Your task to perform on an android device: turn on translation in the chrome app Image 0: 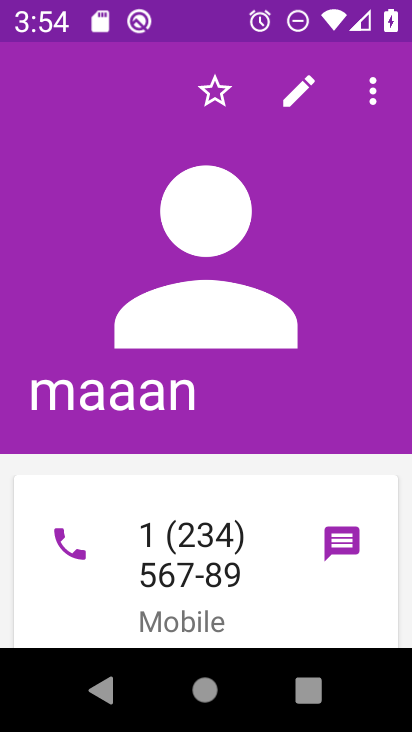
Step 0: press home button
Your task to perform on an android device: turn on translation in the chrome app Image 1: 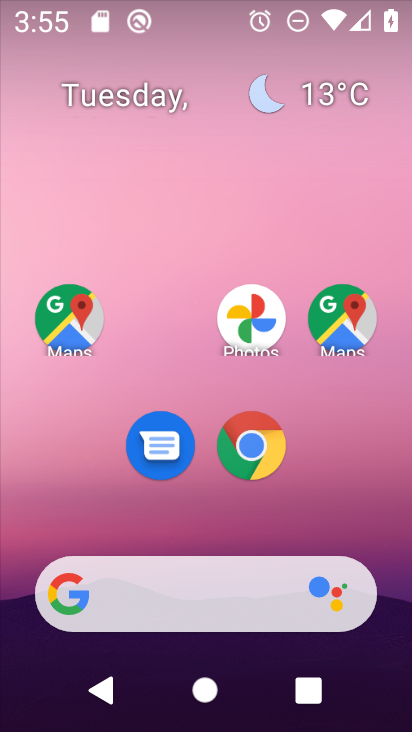
Step 1: drag from (398, 572) to (394, 300)
Your task to perform on an android device: turn on translation in the chrome app Image 2: 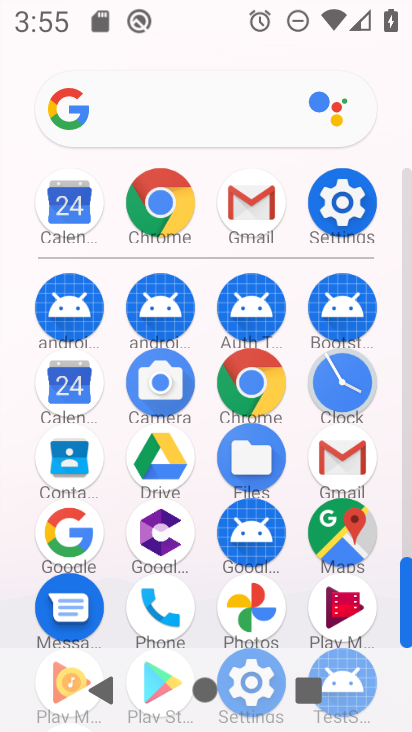
Step 2: click (273, 410)
Your task to perform on an android device: turn on translation in the chrome app Image 3: 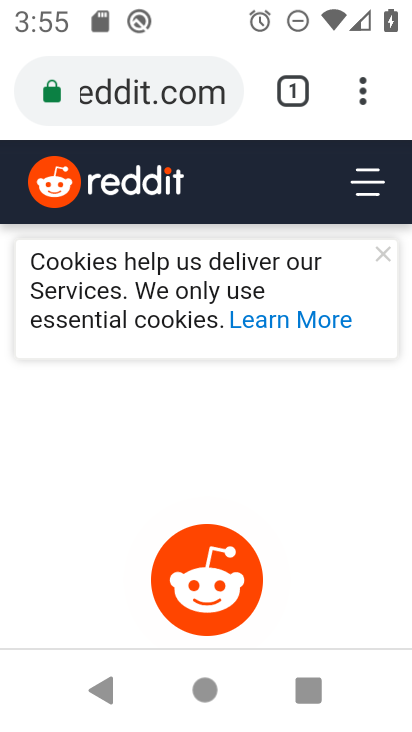
Step 3: click (361, 101)
Your task to perform on an android device: turn on translation in the chrome app Image 4: 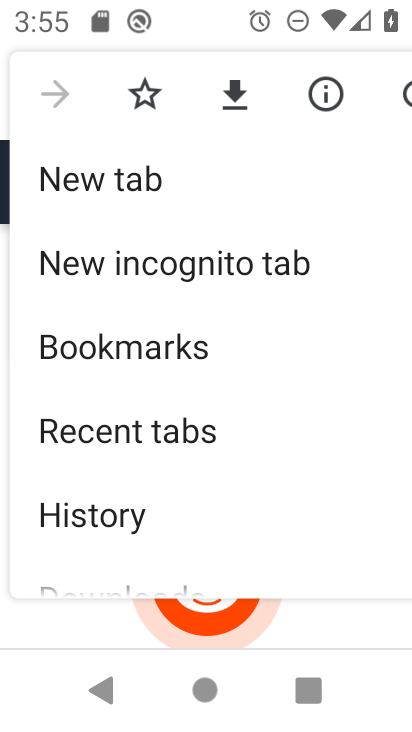
Step 4: drag from (377, 429) to (385, 381)
Your task to perform on an android device: turn on translation in the chrome app Image 5: 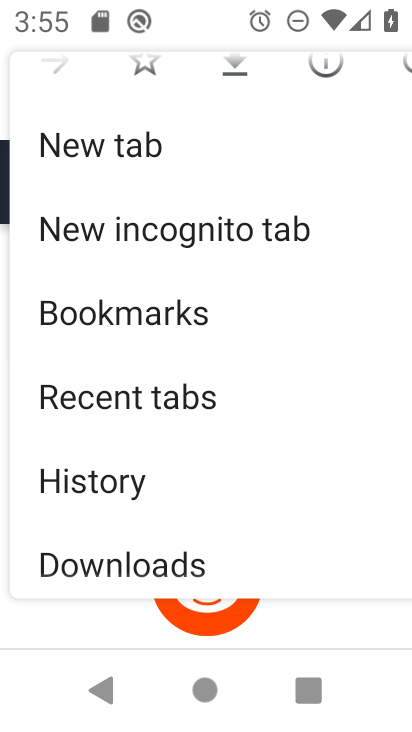
Step 5: drag from (373, 466) to (372, 417)
Your task to perform on an android device: turn on translation in the chrome app Image 6: 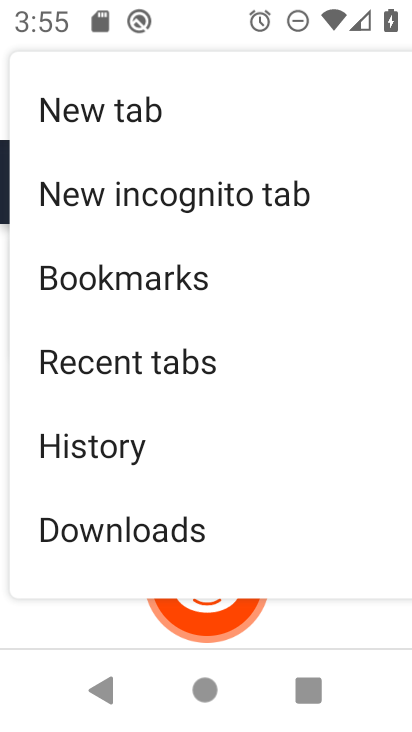
Step 6: drag from (363, 499) to (368, 438)
Your task to perform on an android device: turn on translation in the chrome app Image 7: 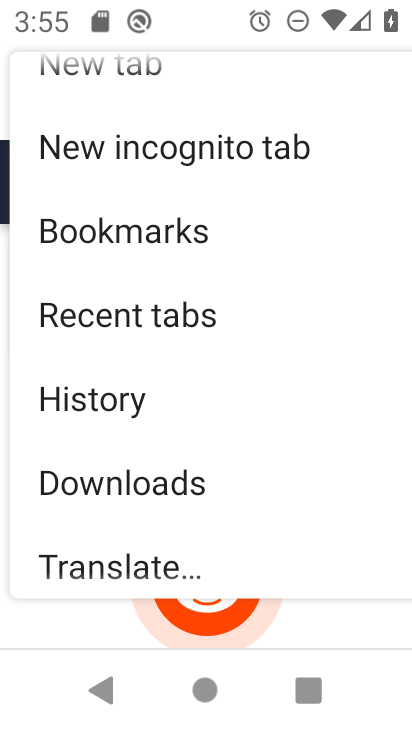
Step 7: drag from (354, 518) to (364, 453)
Your task to perform on an android device: turn on translation in the chrome app Image 8: 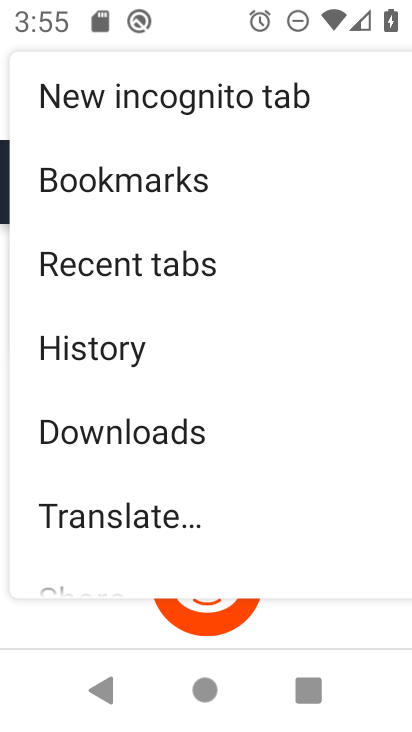
Step 8: drag from (359, 525) to (351, 449)
Your task to perform on an android device: turn on translation in the chrome app Image 9: 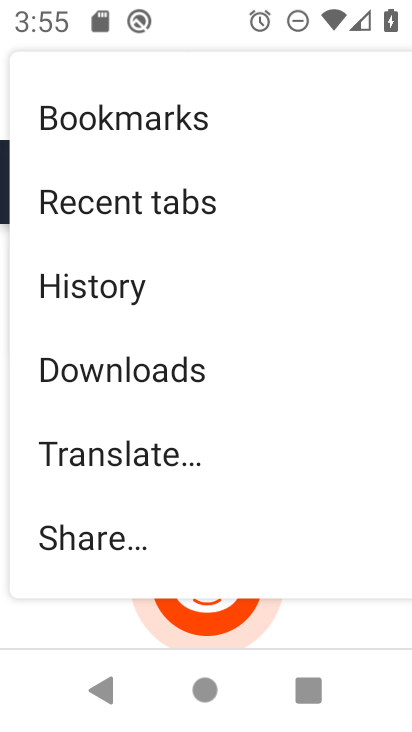
Step 9: drag from (335, 523) to (338, 431)
Your task to perform on an android device: turn on translation in the chrome app Image 10: 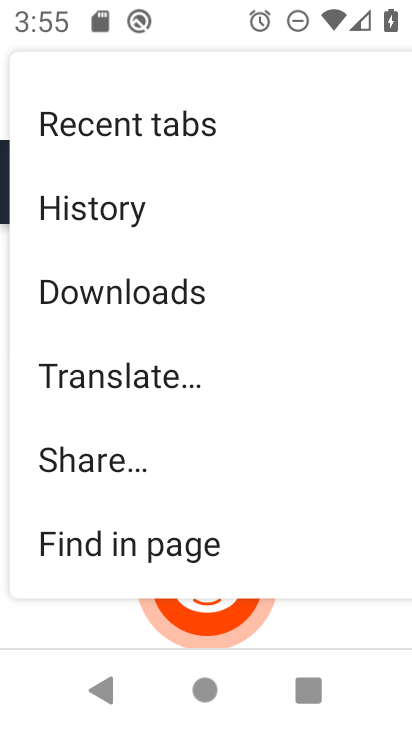
Step 10: drag from (338, 522) to (344, 400)
Your task to perform on an android device: turn on translation in the chrome app Image 11: 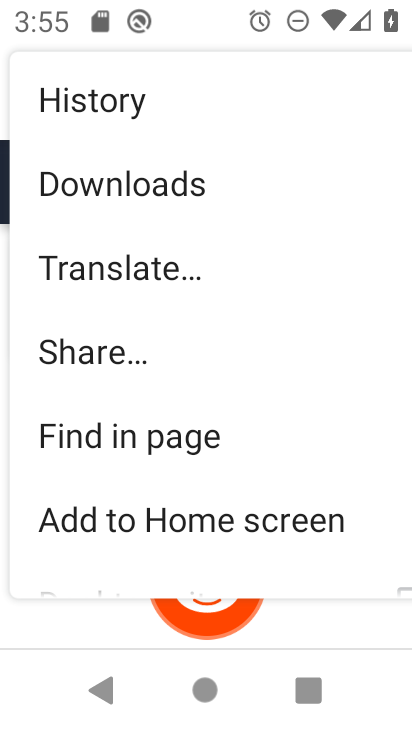
Step 11: drag from (364, 546) to (377, 448)
Your task to perform on an android device: turn on translation in the chrome app Image 12: 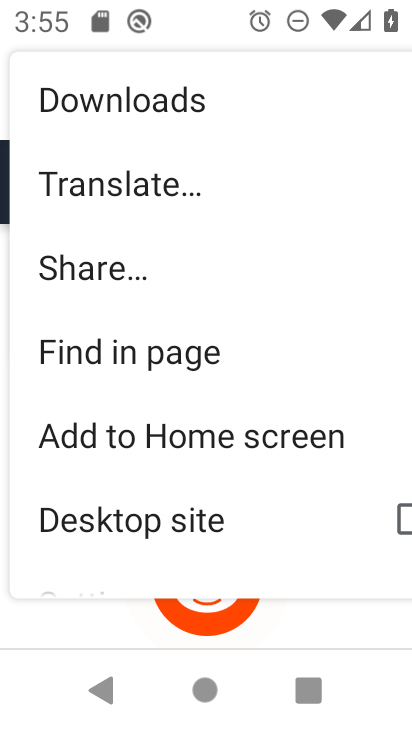
Step 12: drag from (355, 532) to (355, 455)
Your task to perform on an android device: turn on translation in the chrome app Image 13: 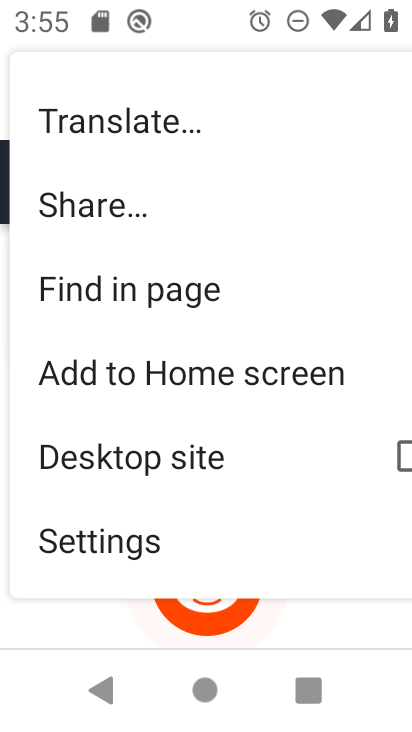
Step 13: click (207, 551)
Your task to perform on an android device: turn on translation in the chrome app Image 14: 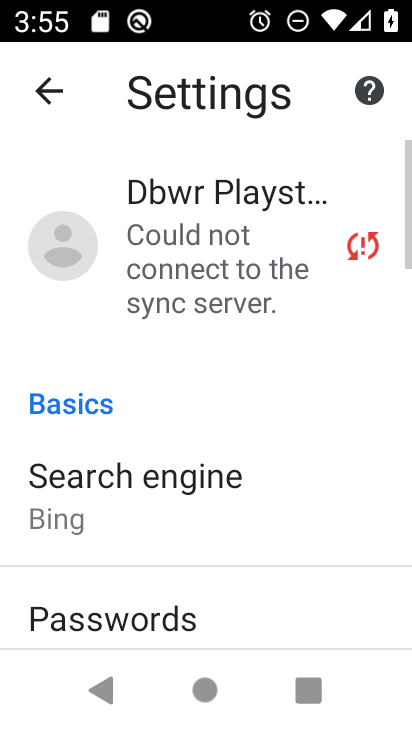
Step 14: drag from (300, 564) to (304, 518)
Your task to perform on an android device: turn on translation in the chrome app Image 15: 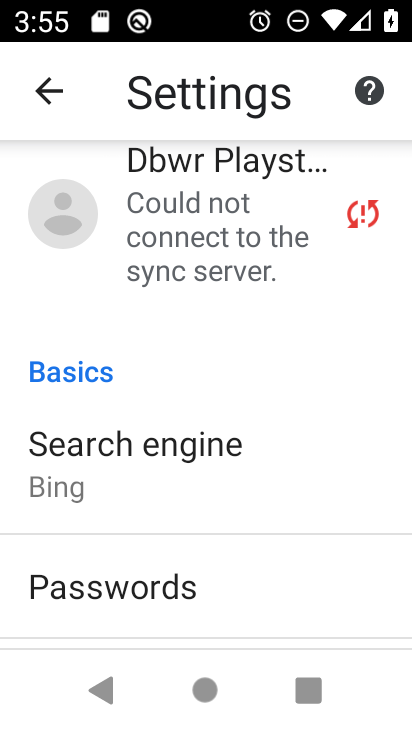
Step 15: drag from (316, 571) to (327, 509)
Your task to perform on an android device: turn on translation in the chrome app Image 16: 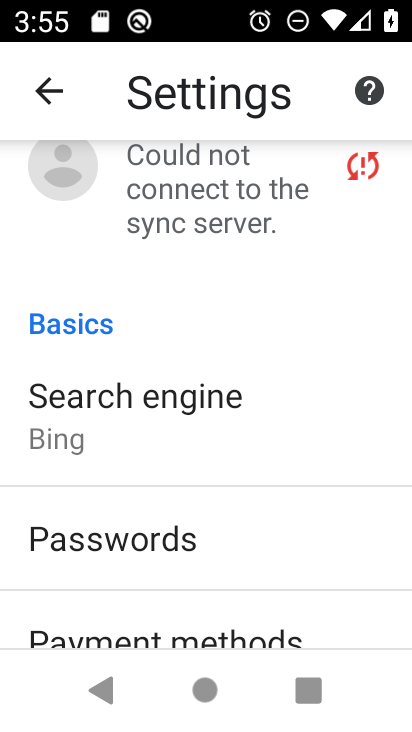
Step 16: drag from (334, 560) to (337, 486)
Your task to perform on an android device: turn on translation in the chrome app Image 17: 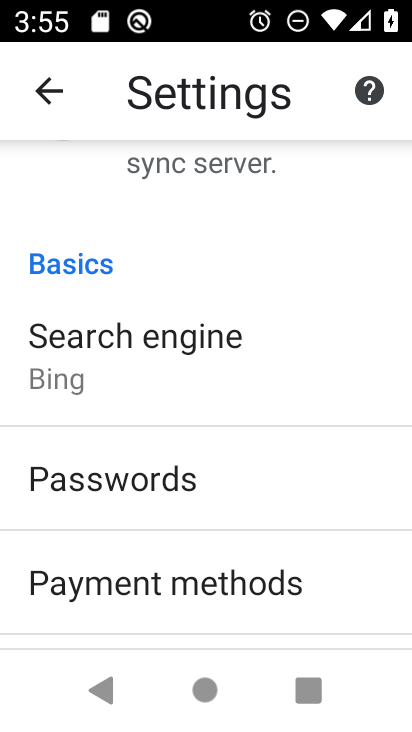
Step 17: drag from (347, 560) to (341, 483)
Your task to perform on an android device: turn on translation in the chrome app Image 18: 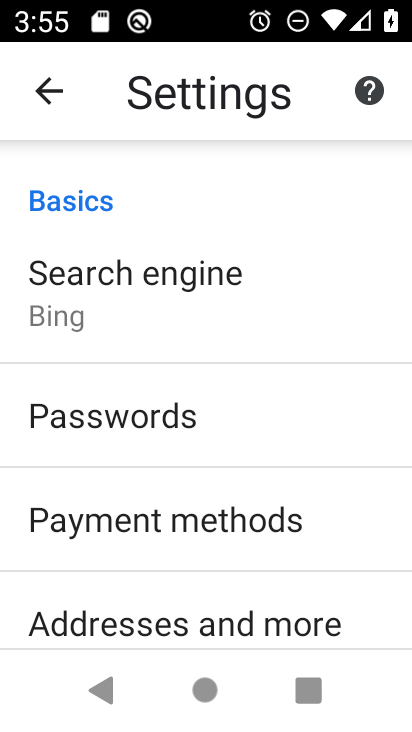
Step 18: drag from (361, 567) to (374, 501)
Your task to perform on an android device: turn on translation in the chrome app Image 19: 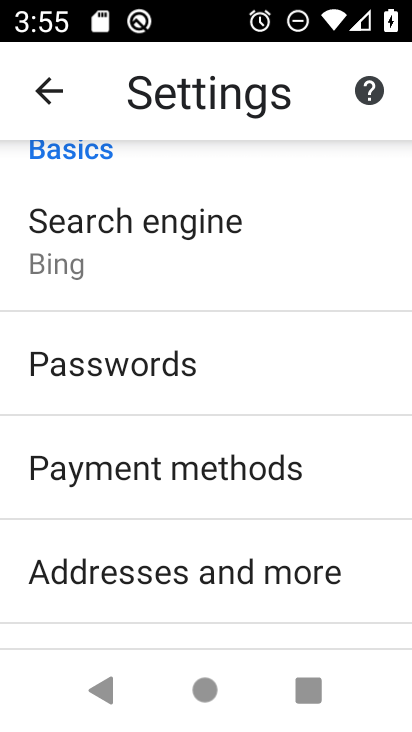
Step 19: drag from (367, 578) to (377, 489)
Your task to perform on an android device: turn on translation in the chrome app Image 20: 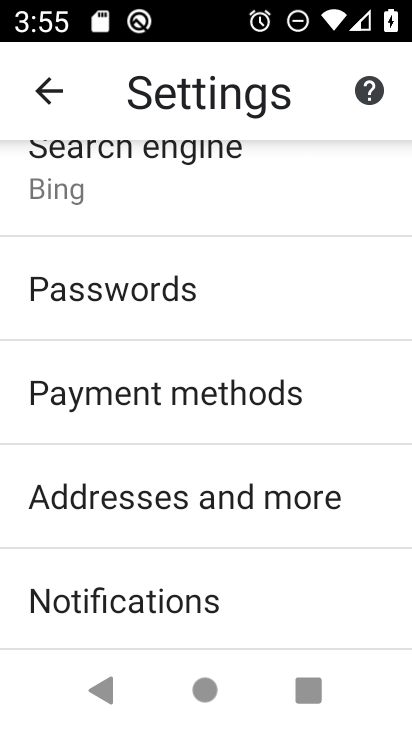
Step 20: drag from (377, 575) to (375, 489)
Your task to perform on an android device: turn on translation in the chrome app Image 21: 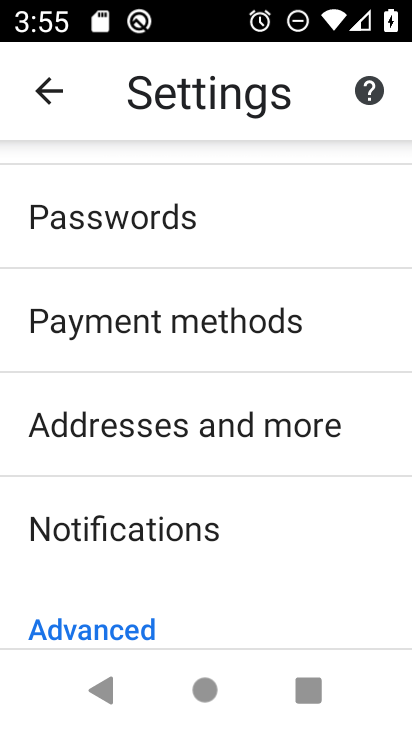
Step 21: drag from (361, 574) to (357, 475)
Your task to perform on an android device: turn on translation in the chrome app Image 22: 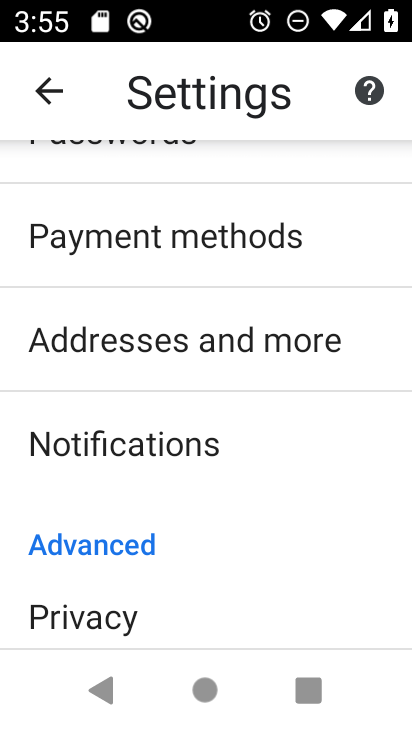
Step 22: drag from (347, 582) to (343, 498)
Your task to perform on an android device: turn on translation in the chrome app Image 23: 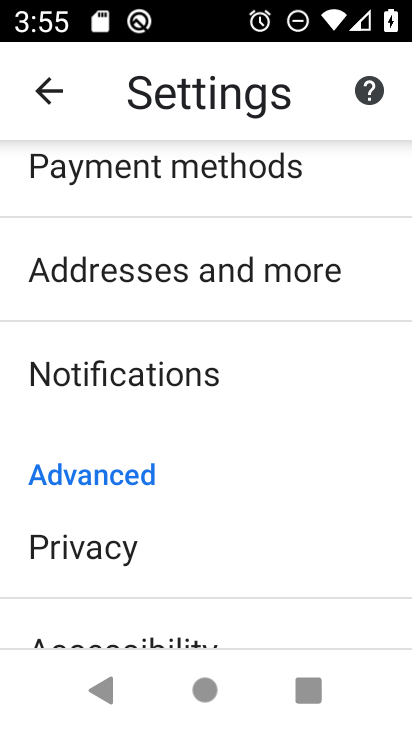
Step 23: drag from (336, 561) to (331, 476)
Your task to perform on an android device: turn on translation in the chrome app Image 24: 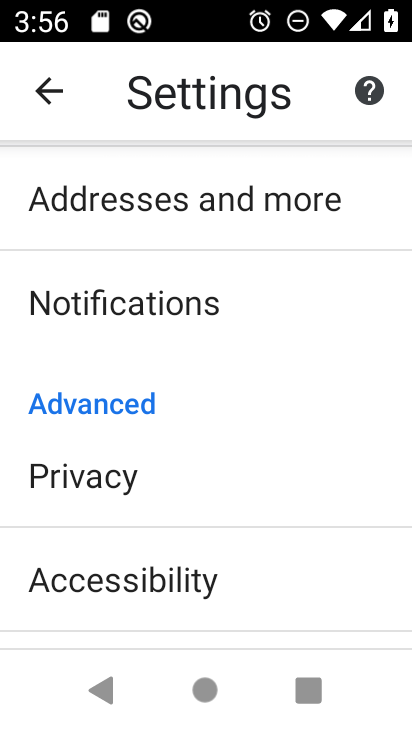
Step 24: drag from (340, 573) to (345, 497)
Your task to perform on an android device: turn on translation in the chrome app Image 25: 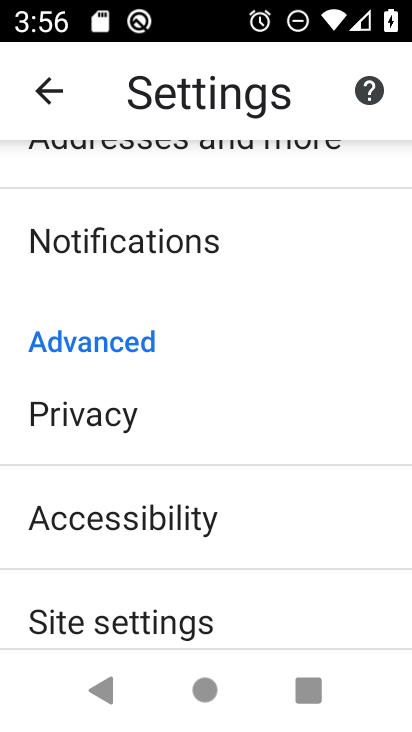
Step 25: drag from (343, 571) to (345, 494)
Your task to perform on an android device: turn on translation in the chrome app Image 26: 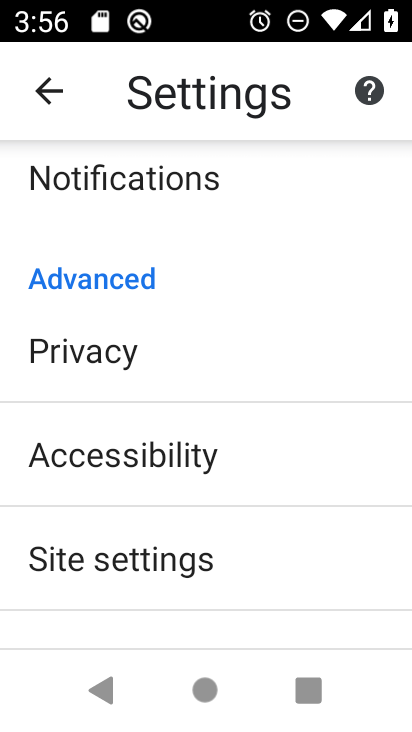
Step 26: drag from (339, 605) to (333, 496)
Your task to perform on an android device: turn on translation in the chrome app Image 27: 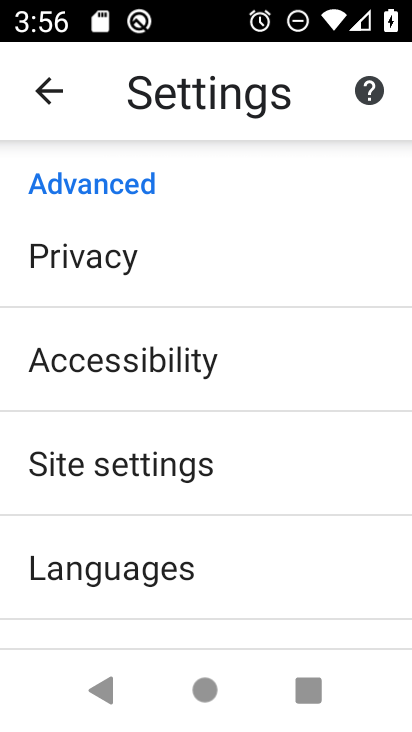
Step 27: click (338, 588)
Your task to perform on an android device: turn on translation in the chrome app Image 28: 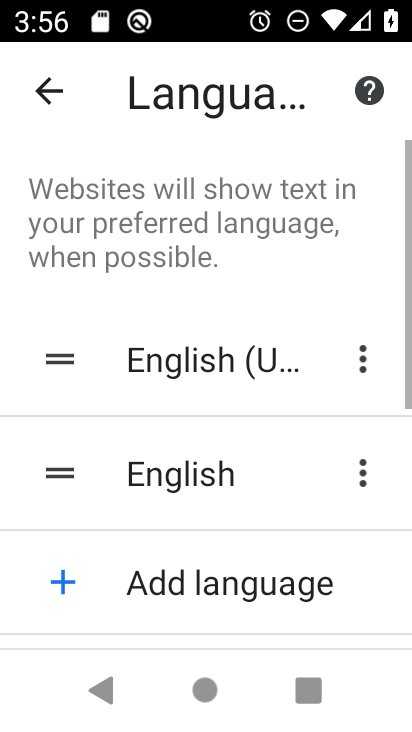
Step 28: drag from (333, 608) to (322, 511)
Your task to perform on an android device: turn on translation in the chrome app Image 29: 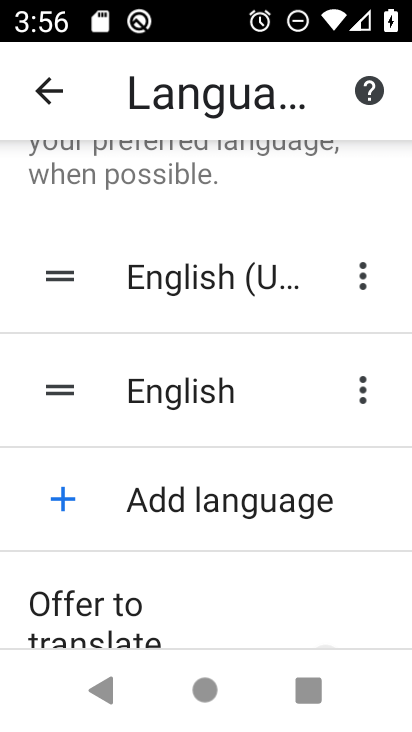
Step 29: drag from (334, 597) to (332, 497)
Your task to perform on an android device: turn on translation in the chrome app Image 30: 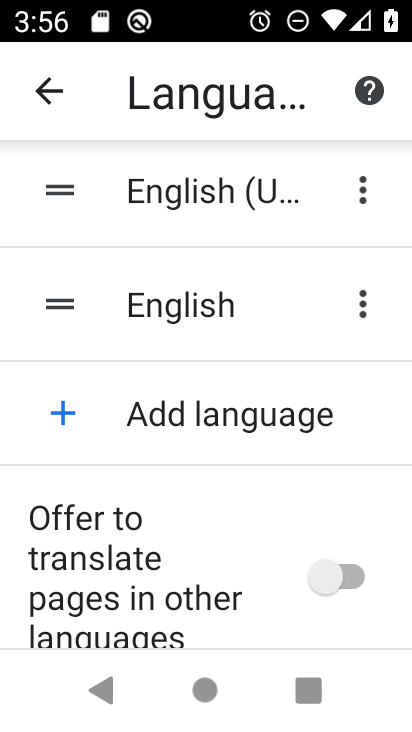
Step 30: drag from (299, 603) to (282, 499)
Your task to perform on an android device: turn on translation in the chrome app Image 31: 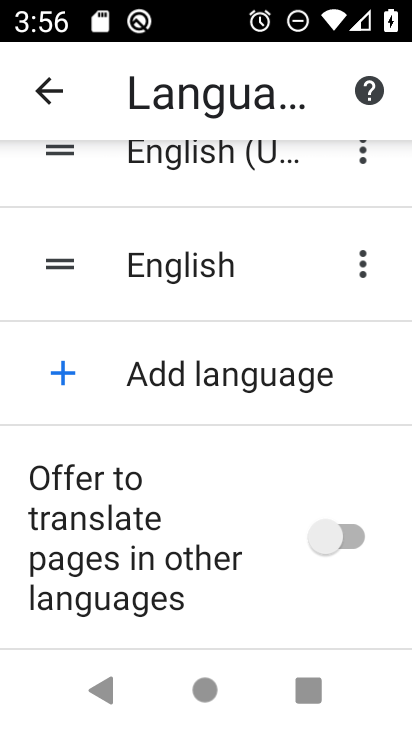
Step 31: click (312, 542)
Your task to perform on an android device: turn on translation in the chrome app Image 32: 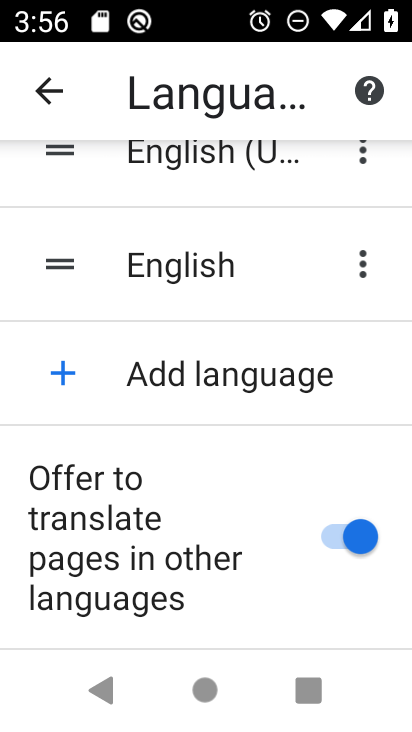
Step 32: task complete